Your task to perform on an android device: Open Android settings Image 0: 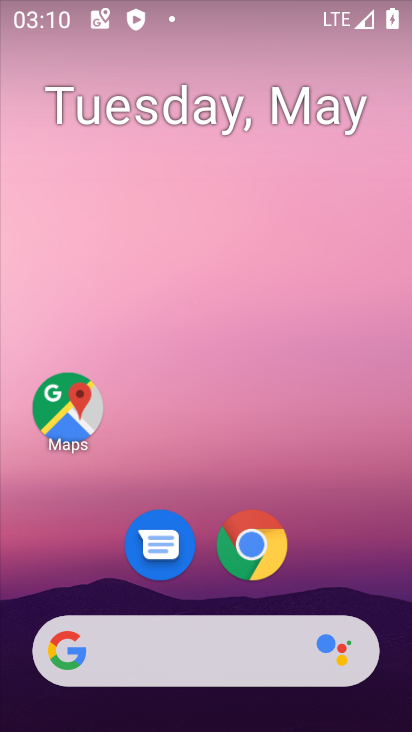
Step 0: drag from (389, 613) to (316, 129)
Your task to perform on an android device: Open Android settings Image 1: 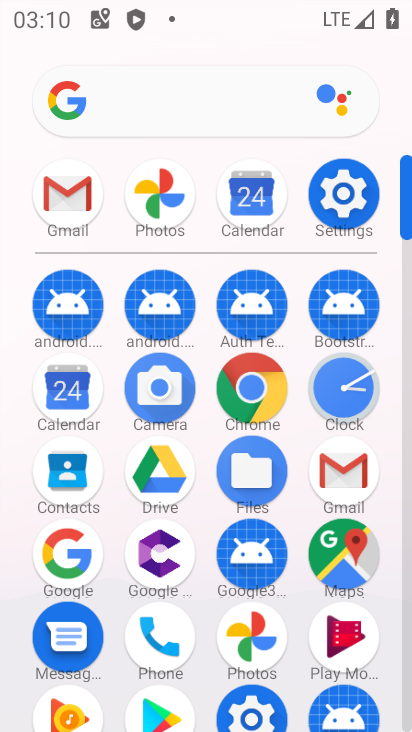
Step 1: click (404, 703)
Your task to perform on an android device: Open Android settings Image 2: 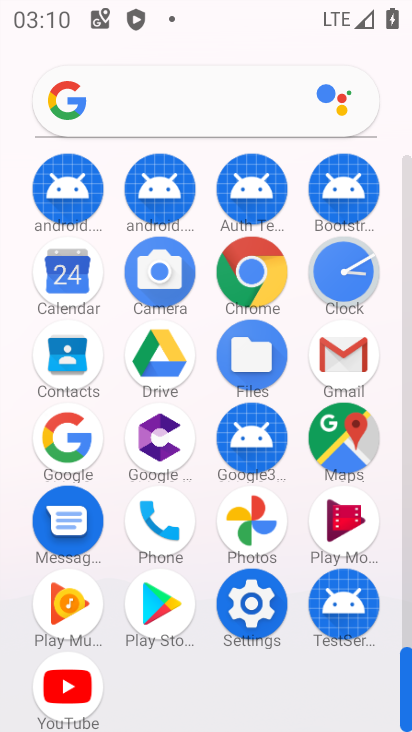
Step 2: click (255, 605)
Your task to perform on an android device: Open Android settings Image 3: 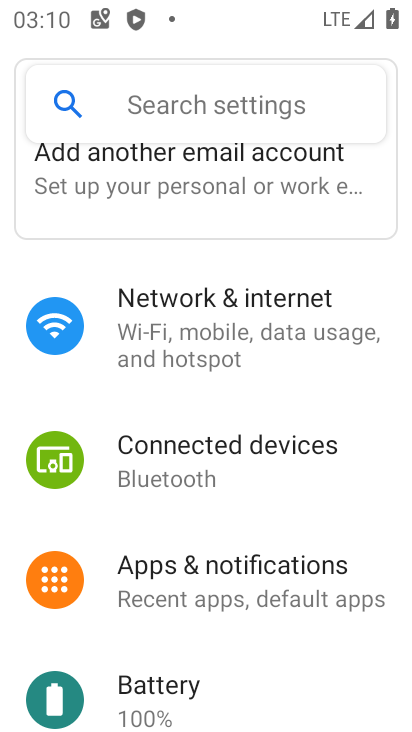
Step 3: drag from (329, 688) to (351, 195)
Your task to perform on an android device: Open Android settings Image 4: 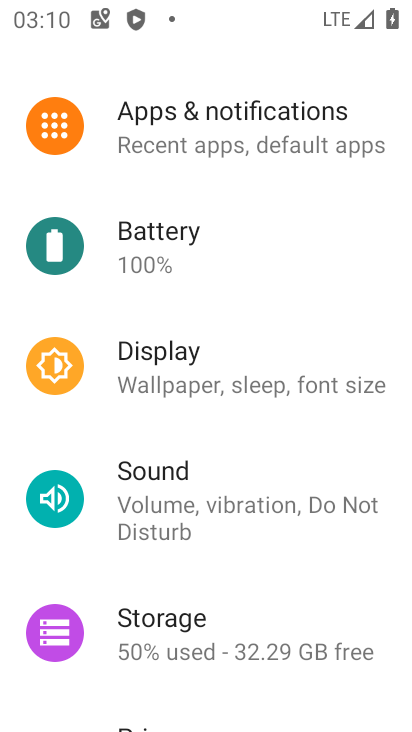
Step 4: drag from (337, 591) to (339, 148)
Your task to perform on an android device: Open Android settings Image 5: 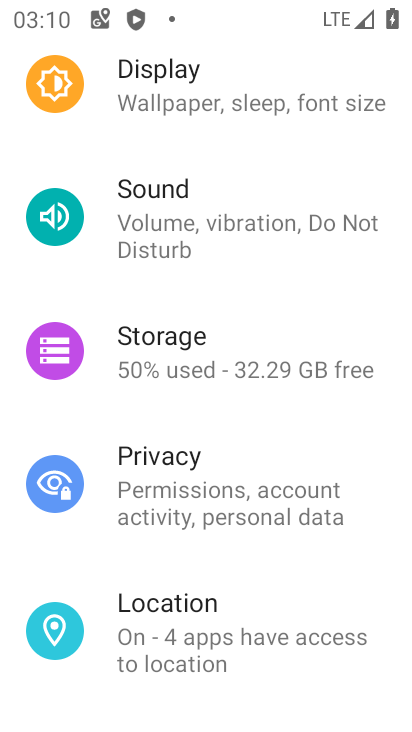
Step 5: drag from (346, 593) to (331, 160)
Your task to perform on an android device: Open Android settings Image 6: 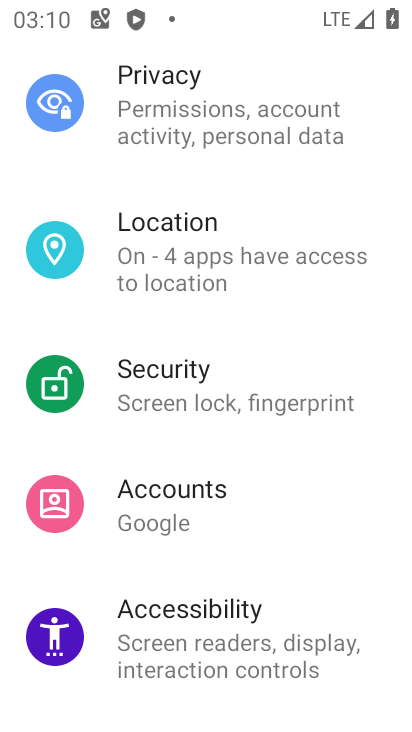
Step 6: drag from (351, 562) to (355, 141)
Your task to perform on an android device: Open Android settings Image 7: 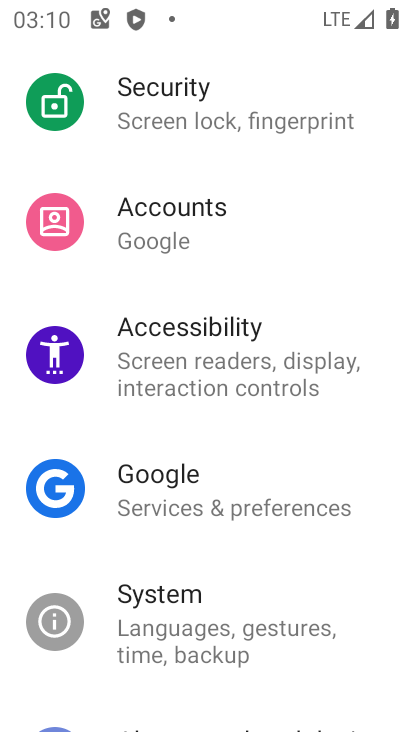
Step 7: drag from (328, 598) to (340, 136)
Your task to perform on an android device: Open Android settings Image 8: 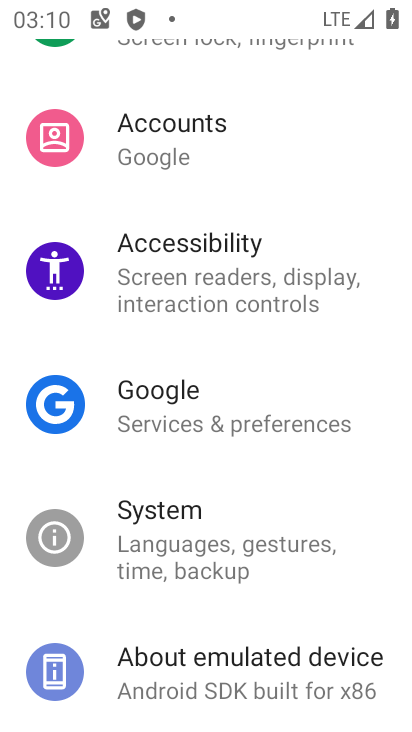
Step 8: click (167, 658)
Your task to perform on an android device: Open Android settings Image 9: 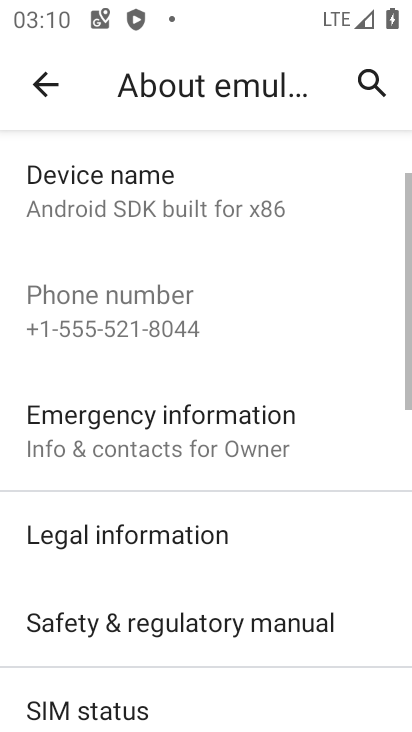
Step 9: task complete